Your task to perform on an android device: toggle improve location accuracy Image 0: 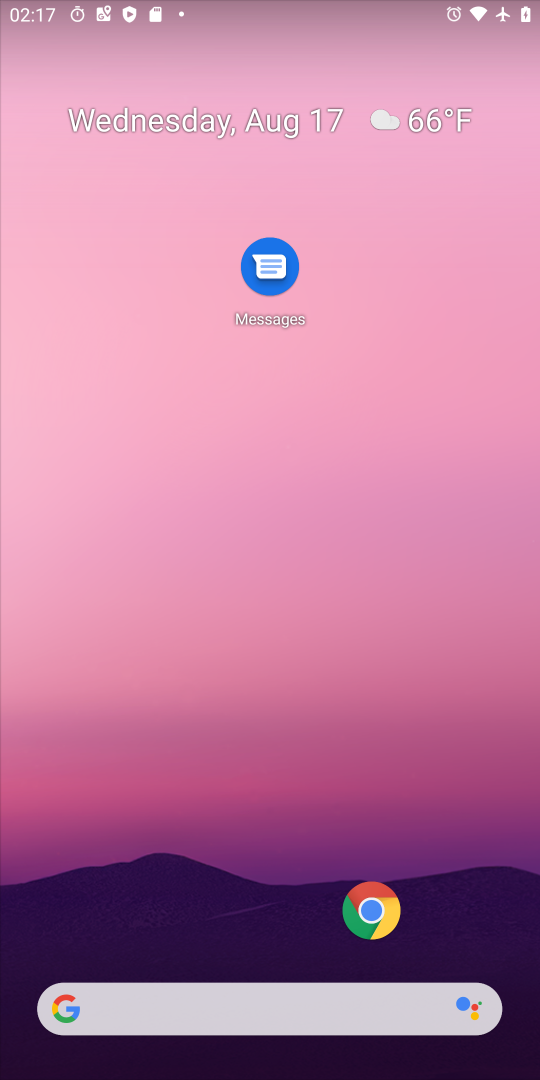
Step 0: drag from (268, 774) to (321, 140)
Your task to perform on an android device: toggle improve location accuracy Image 1: 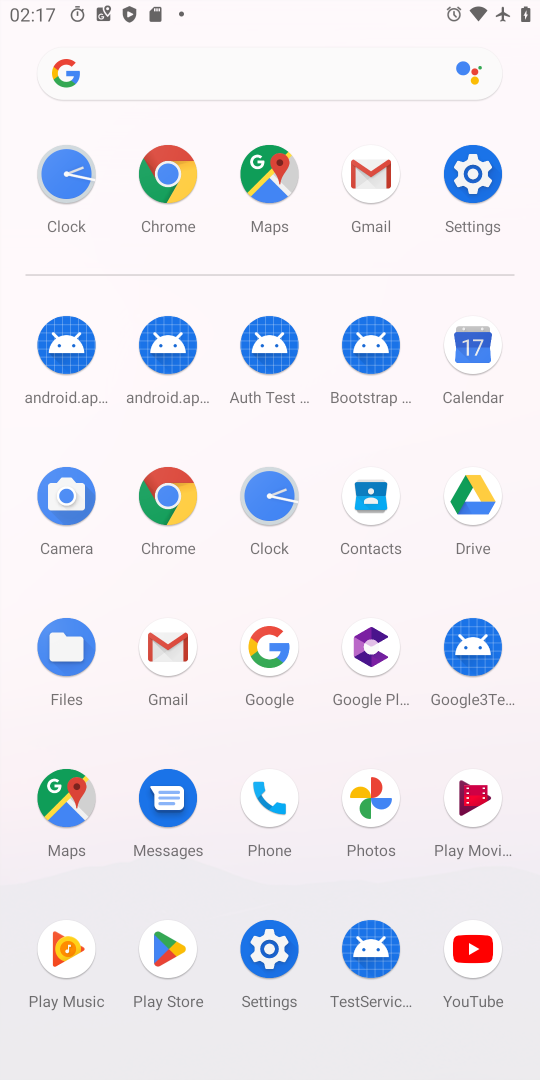
Step 1: click (262, 936)
Your task to perform on an android device: toggle improve location accuracy Image 2: 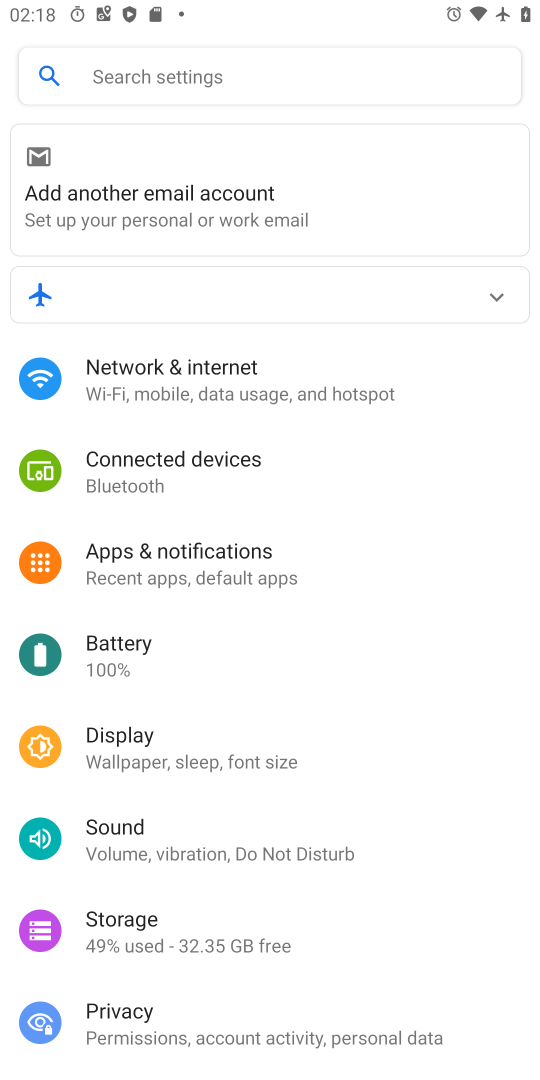
Step 2: drag from (300, 940) to (335, 497)
Your task to perform on an android device: toggle improve location accuracy Image 3: 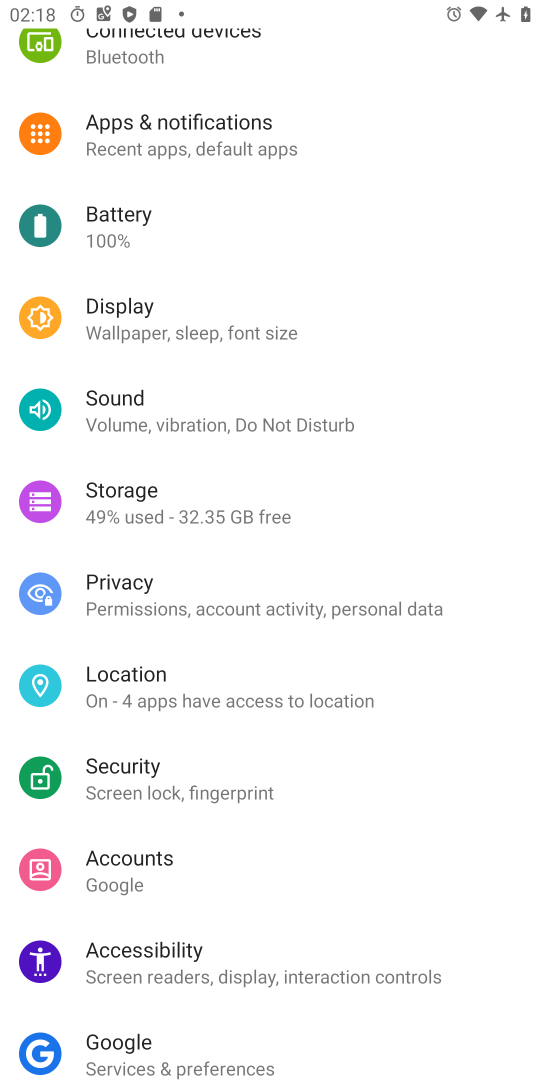
Step 3: click (113, 684)
Your task to perform on an android device: toggle improve location accuracy Image 4: 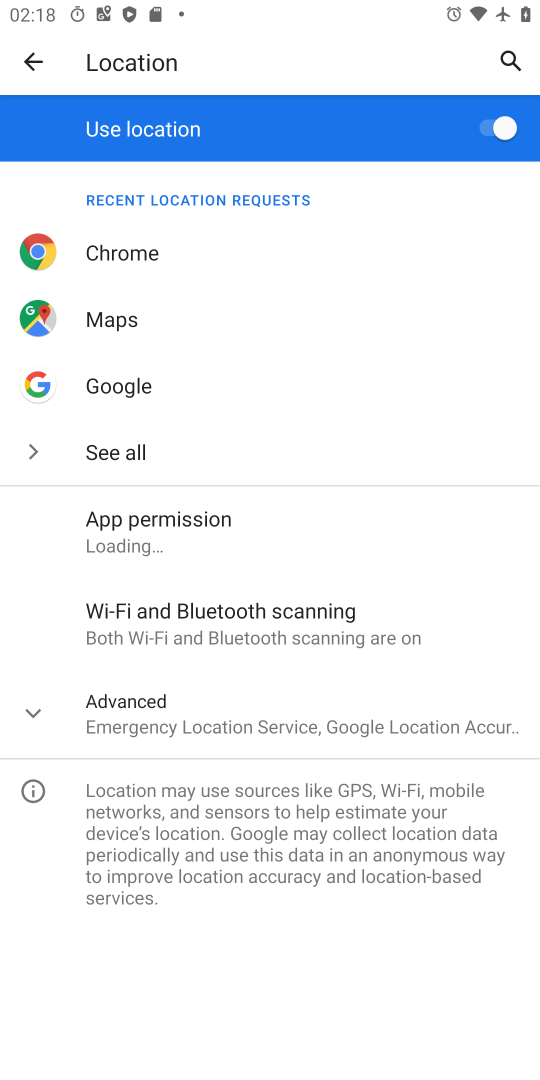
Step 4: click (231, 721)
Your task to perform on an android device: toggle improve location accuracy Image 5: 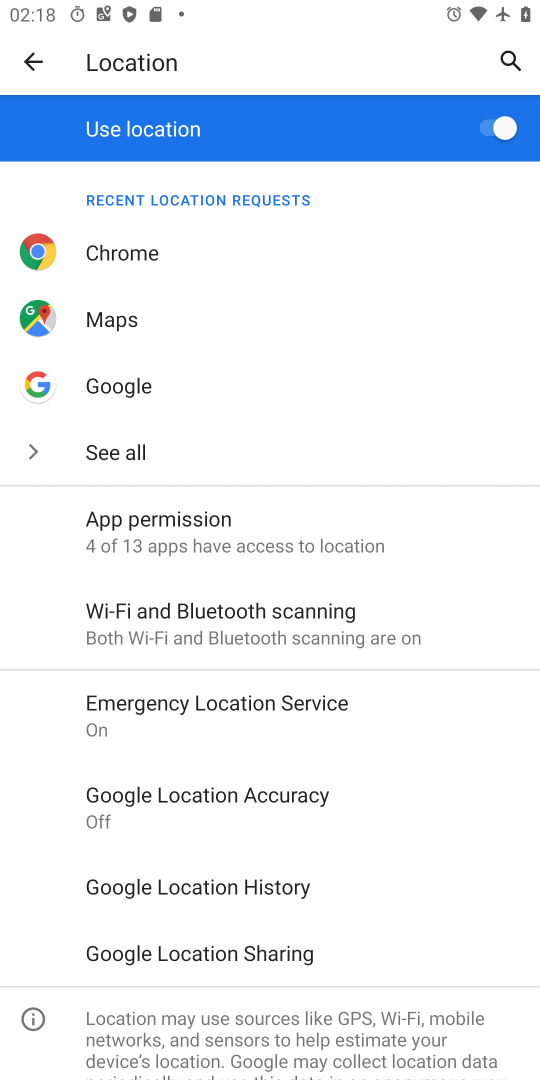
Step 5: click (238, 774)
Your task to perform on an android device: toggle improve location accuracy Image 6: 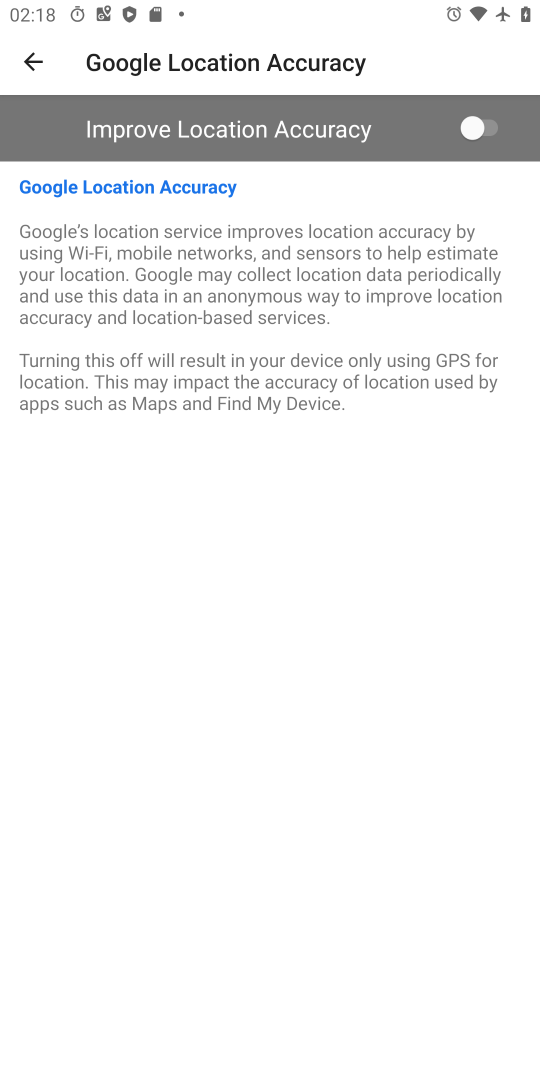
Step 6: click (466, 113)
Your task to perform on an android device: toggle improve location accuracy Image 7: 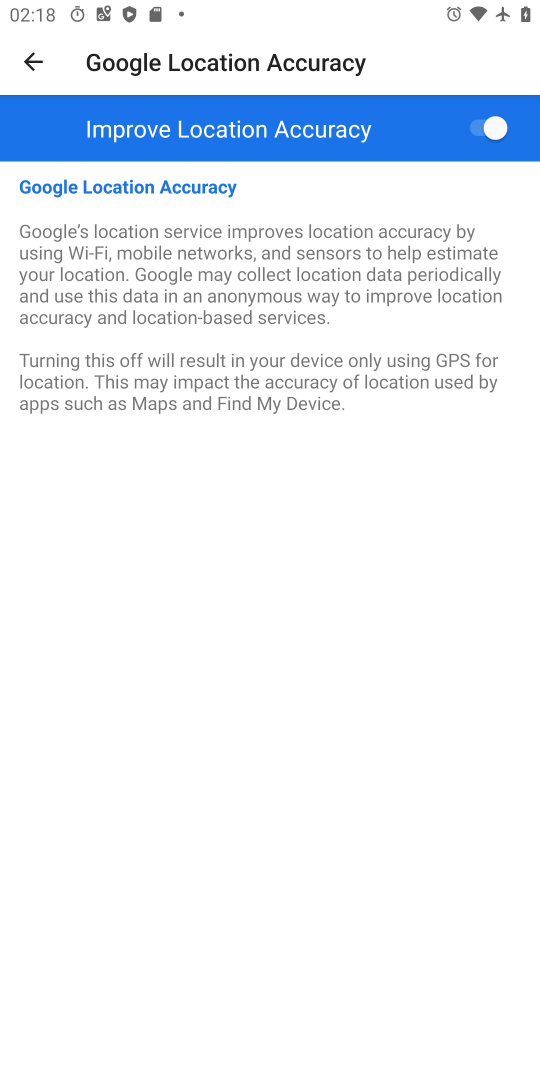
Step 7: task complete